Your task to perform on an android device: What is the news today? Image 0: 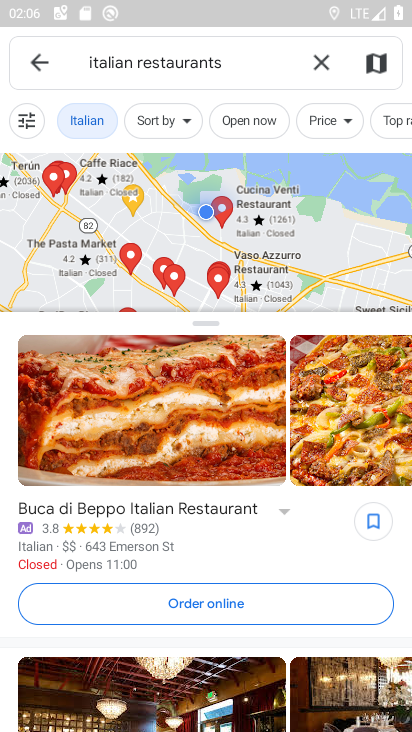
Step 0: press home button
Your task to perform on an android device: What is the news today? Image 1: 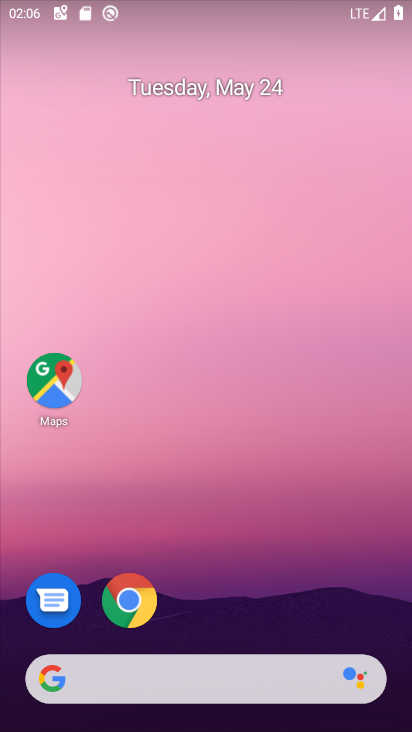
Step 1: click (182, 672)
Your task to perform on an android device: What is the news today? Image 2: 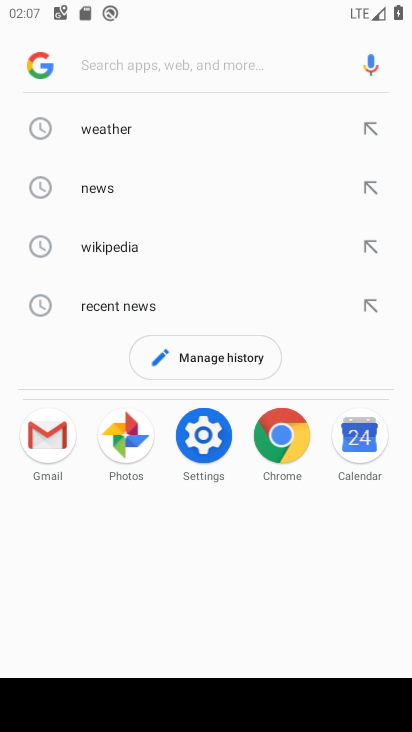
Step 2: type "what is the news today?"
Your task to perform on an android device: What is the news today? Image 3: 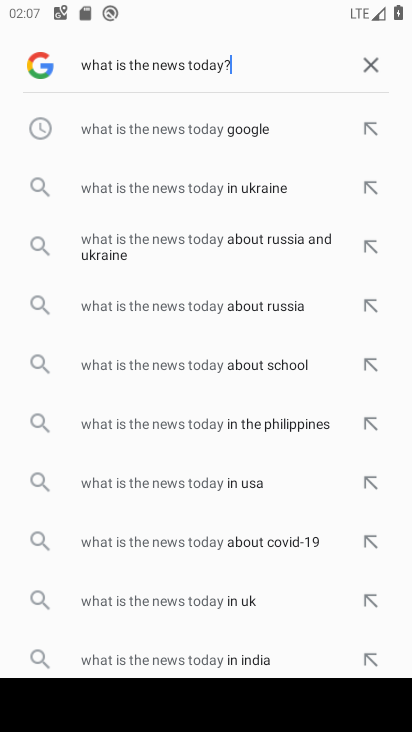
Step 3: click (150, 108)
Your task to perform on an android device: What is the news today? Image 4: 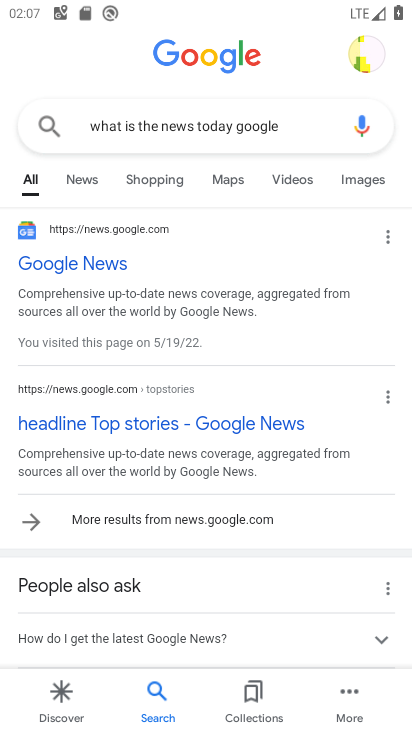
Step 4: click (290, 110)
Your task to perform on an android device: What is the news today? Image 5: 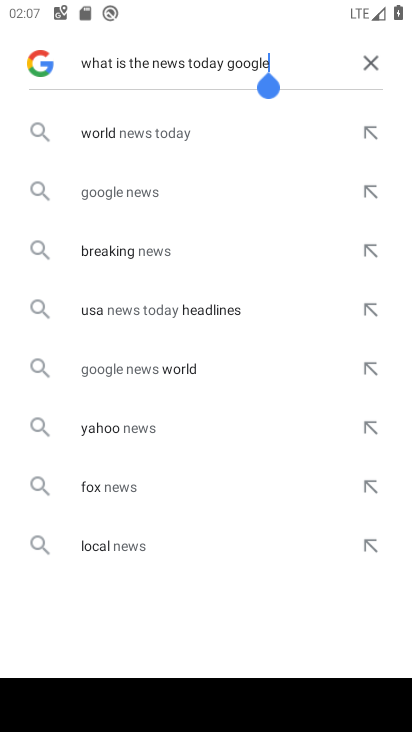
Step 5: click (370, 45)
Your task to perform on an android device: What is the news today? Image 6: 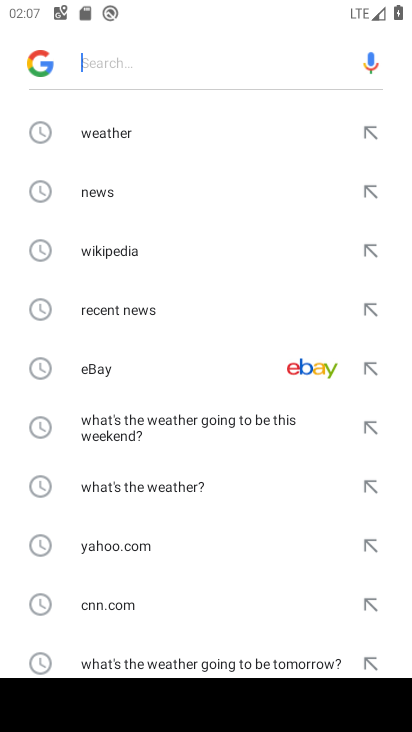
Step 6: type "news today"
Your task to perform on an android device: What is the news today? Image 7: 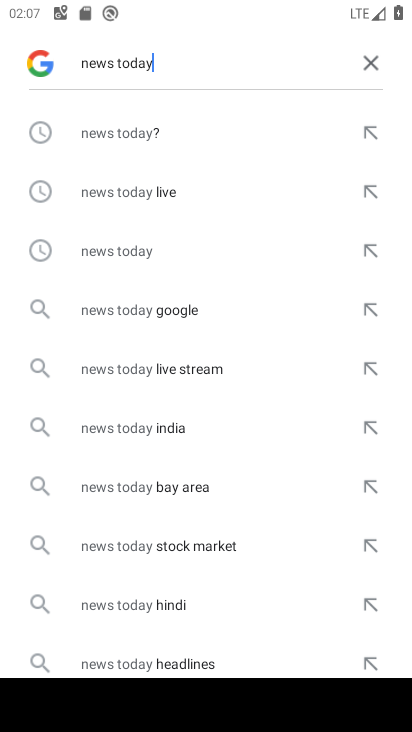
Step 7: click (118, 141)
Your task to perform on an android device: What is the news today? Image 8: 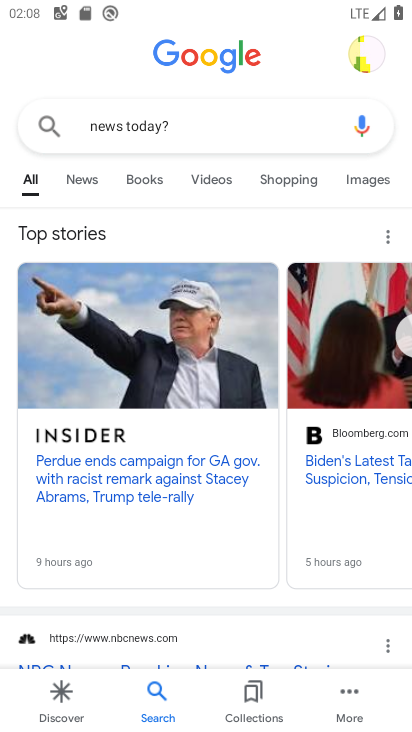
Step 8: task complete